Your task to perform on an android device: Open Wikipedia Image 0: 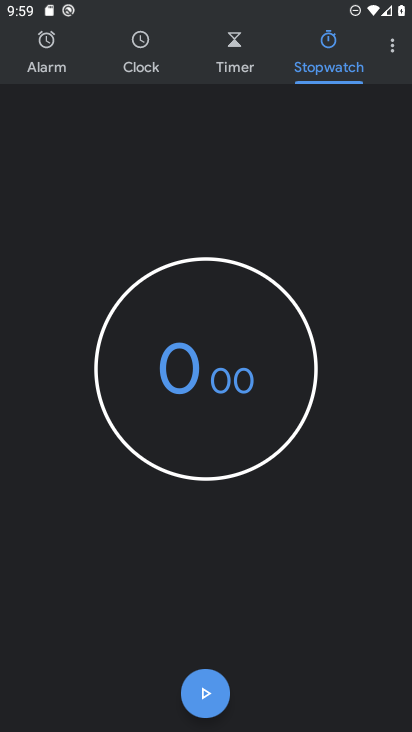
Step 0: press home button
Your task to perform on an android device: Open Wikipedia Image 1: 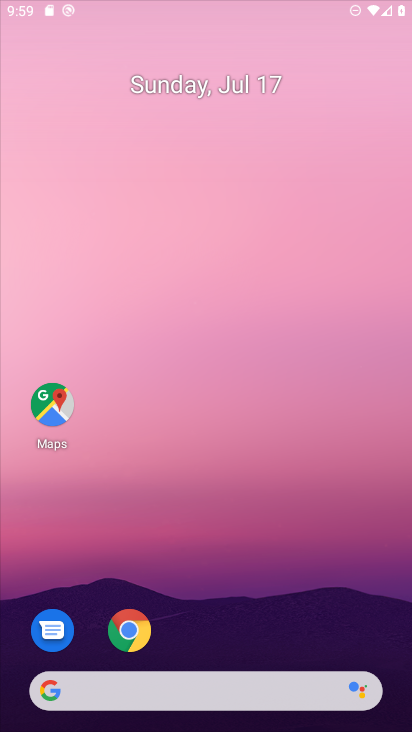
Step 1: drag from (246, 677) to (243, 273)
Your task to perform on an android device: Open Wikipedia Image 2: 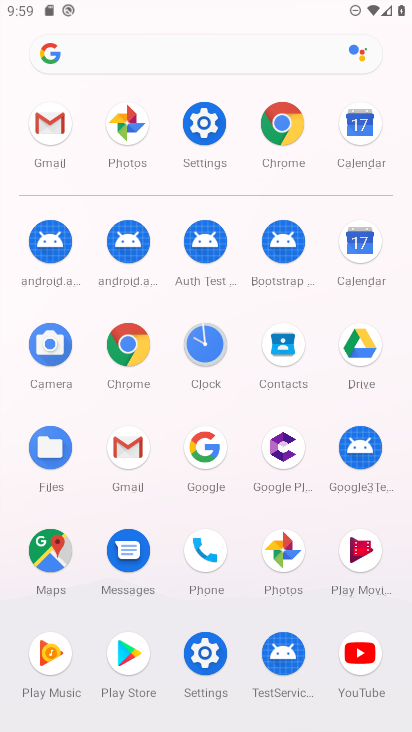
Step 2: click (270, 115)
Your task to perform on an android device: Open Wikipedia Image 3: 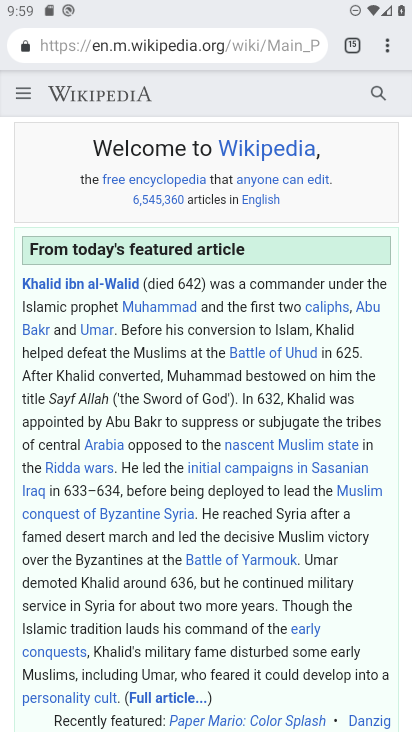
Step 3: task complete